Your task to perform on an android device: Open the Play Movies app and select the watchlist tab. Image 0: 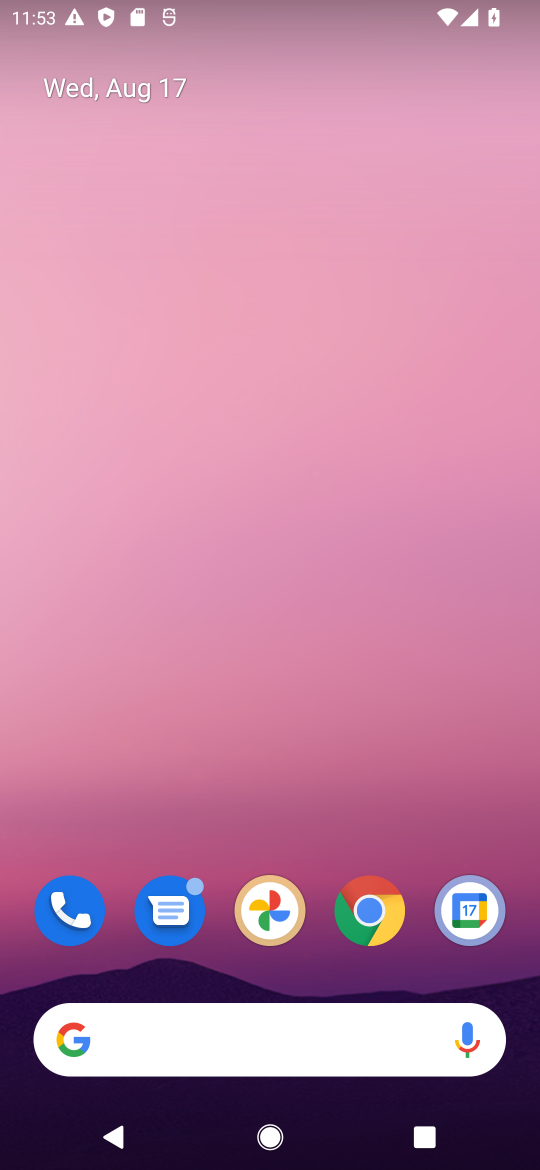
Step 0: drag from (279, 902) to (314, 88)
Your task to perform on an android device: Open the Play Movies app and select the watchlist tab. Image 1: 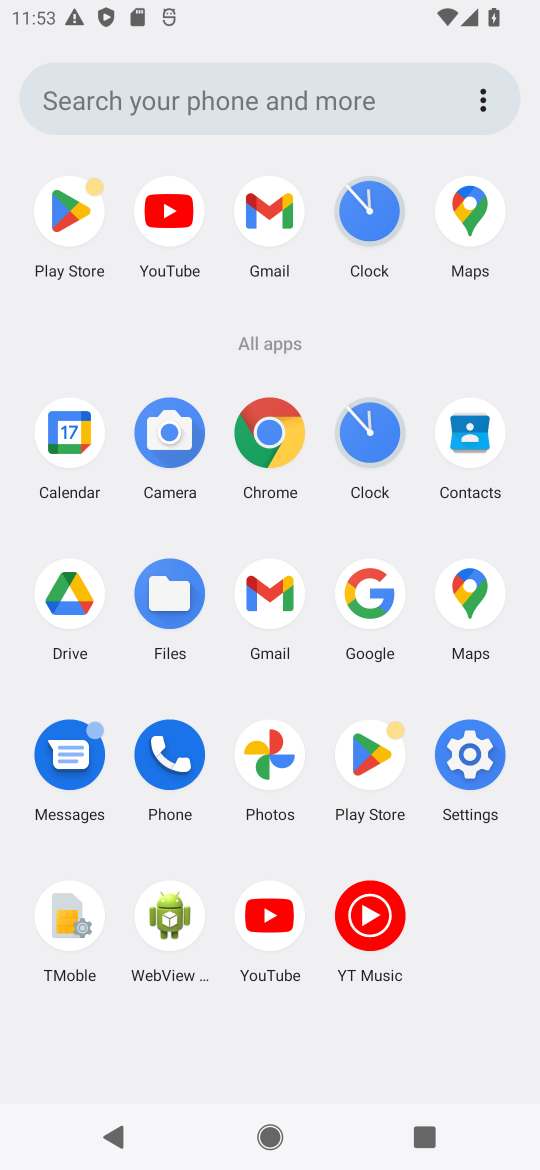
Step 1: task complete